Your task to perform on an android device: Go to Amazon Image 0: 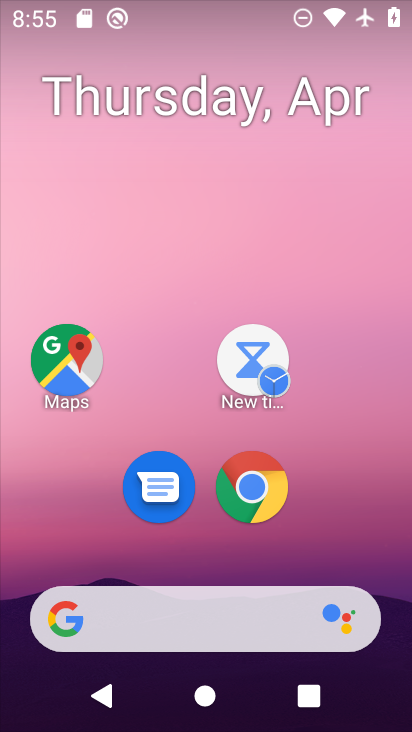
Step 0: click (265, 479)
Your task to perform on an android device: Go to Amazon Image 1: 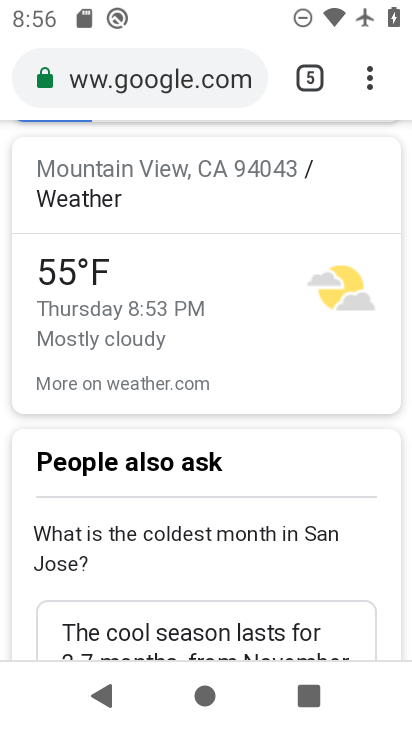
Step 1: drag from (205, 583) to (203, 248)
Your task to perform on an android device: Go to Amazon Image 2: 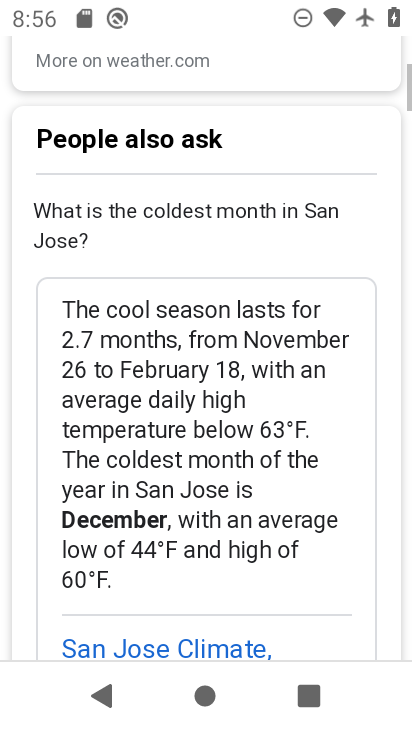
Step 2: drag from (302, 121) to (276, 498)
Your task to perform on an android device: Go to Amazon Image 3: 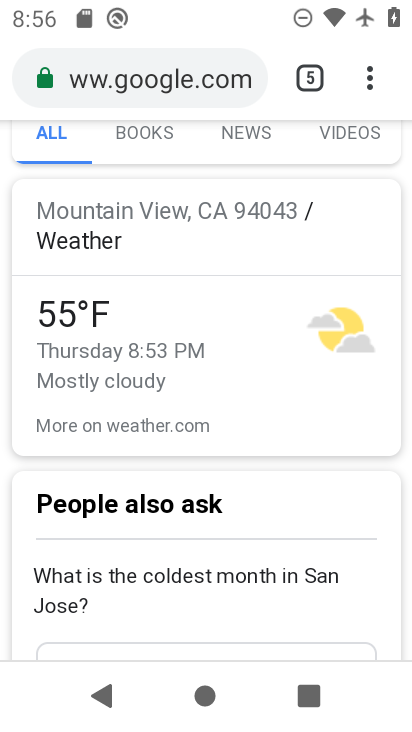
Step 3: click (307, 79)
Your task to perform on an android device: Go to Amazon Image 4: 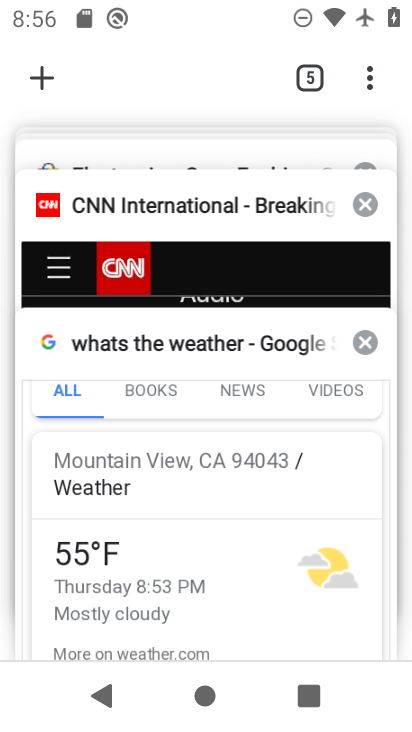
Step 4: click (39, 72)
Your task to perform on an android device: Go to Amazon Image 5: 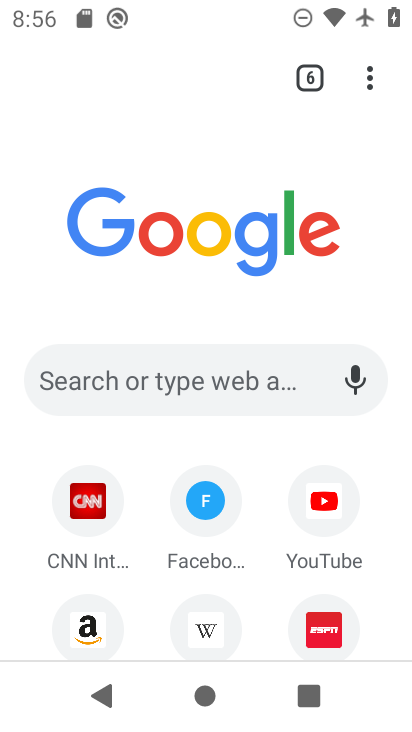
Step 5: click (92, 614)
Your task to perform on an android device: Go to Amazon Image 6: 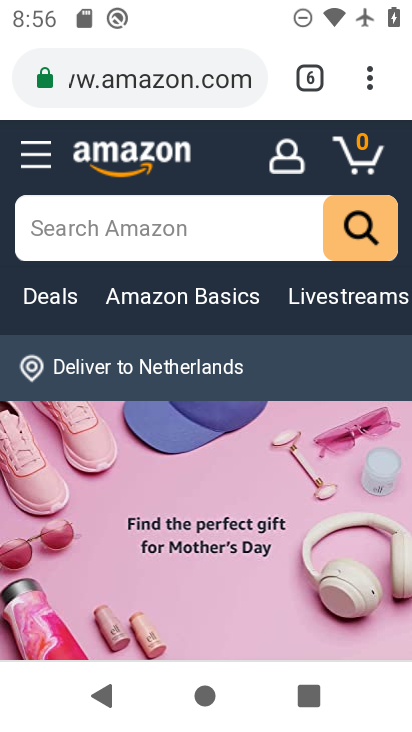
Step 6: task complete